Your task to perform on an android device: choose inbox layout in the gmail app Image 0: 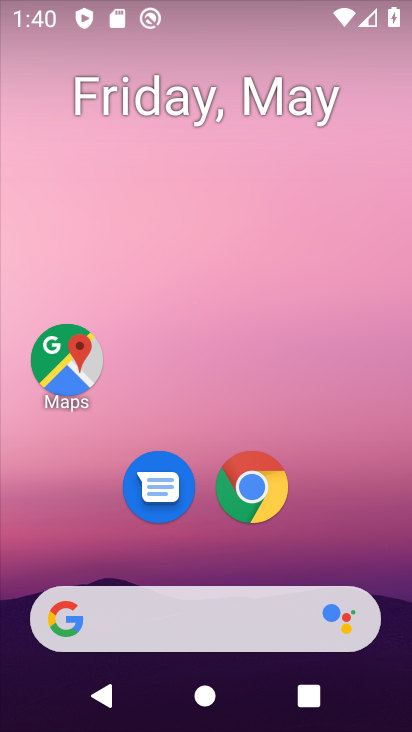
Step 0: drag from (344, 544) to (295, 29)
Your task to perform on an android device: choose inbox layout in the gmail app Image 1: 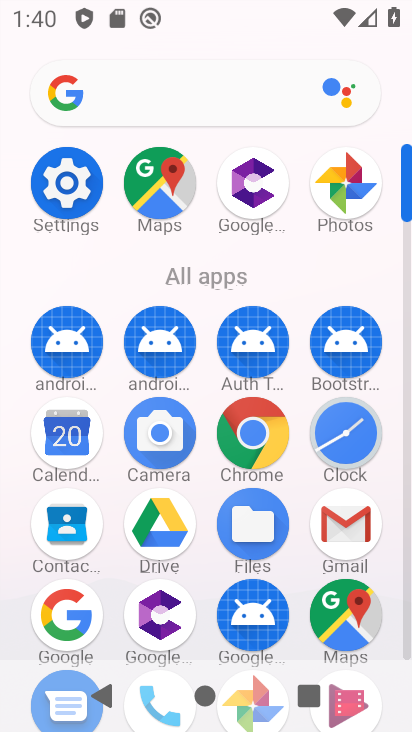
Step 1: click (338, 526)
Your task to perform on an android device: choose inbox layout in the gmail app Image 2: 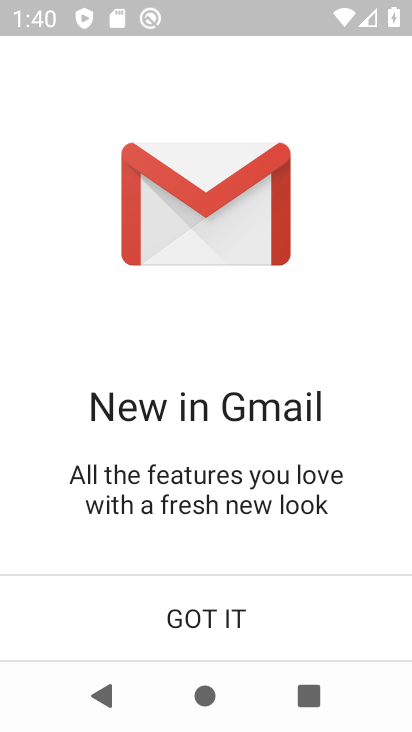
Step 2: click (197, 615)
Your task to perform on an android device: choose inbox layout in the gmail app Image 3: 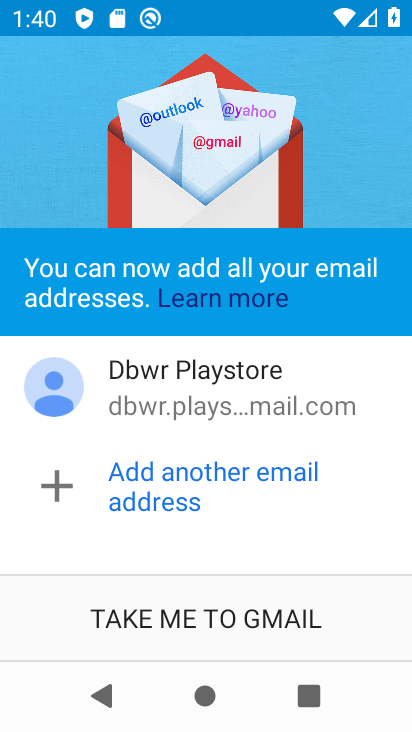
Step 3: click (197, 615)
Your task to perform on an android device: choose inbox layout in the gmail app Image 4: 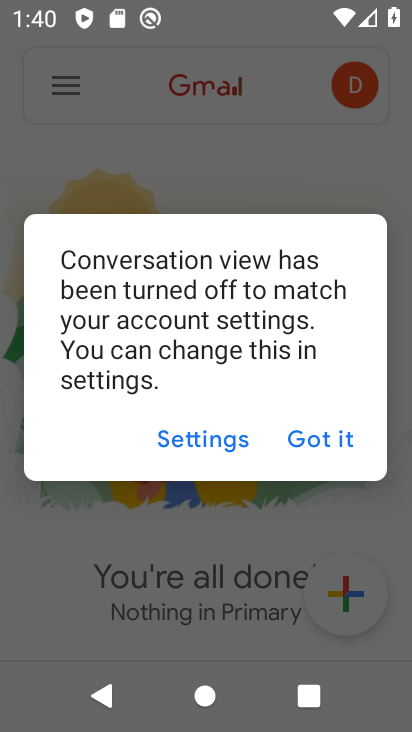
Step 4: click (305, 446)
Your task to perform on an android device: choose inbox layout in the gmail app Image 5: 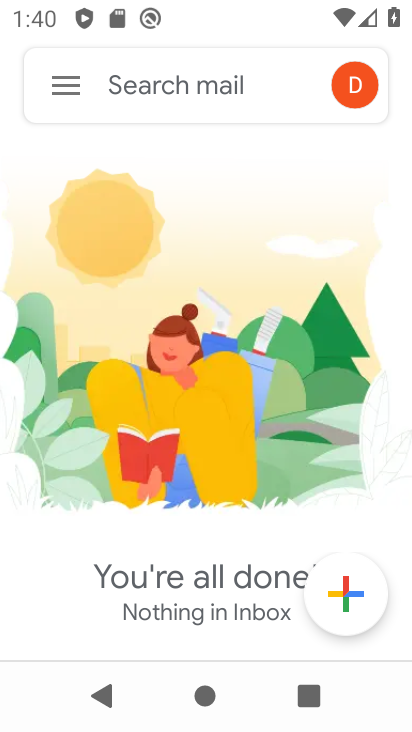
Step 5: click (51, 96)
Your task to perform on an android device: choose inbox layout in the gmail app Image 6: 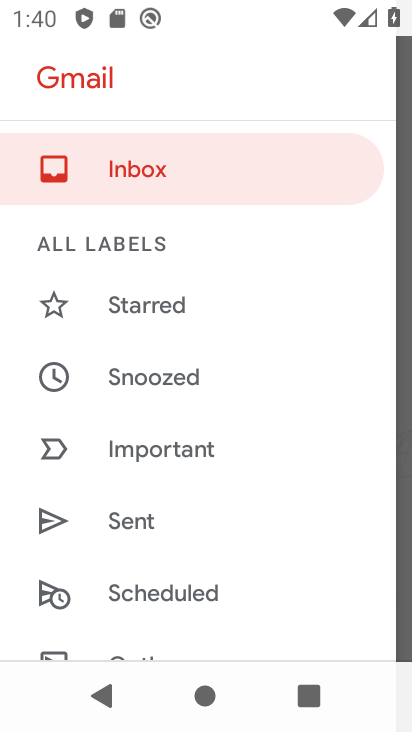
Step 6: drag from (209, 602) to (191, 88)
Your task to perform on an android device: choose inbox layout in the gmail app Image 7: 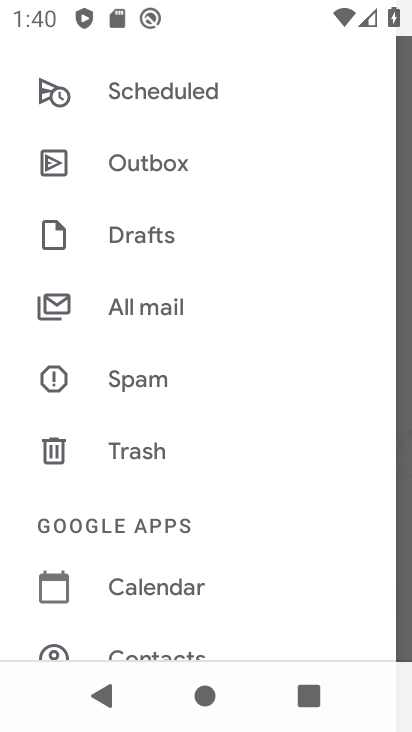
Step 7: drag from (216, 618) to (176, 199)
Your task to perform on an android device: choose inbox layout in the gmail app Image 8: 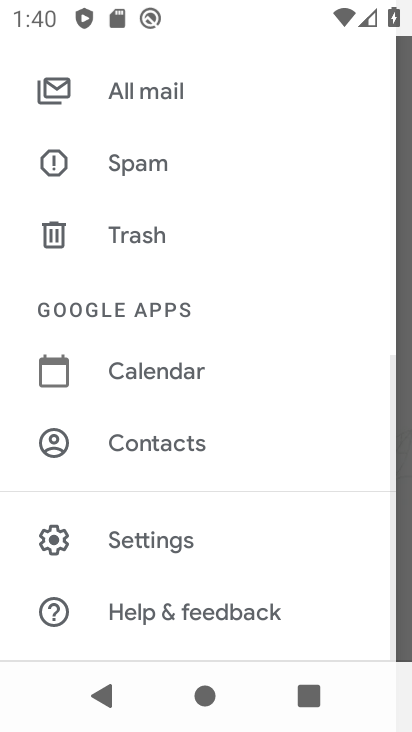
Step 8: click (130, 544)
Your task to perform on an android device: choose inbox layout in the gmail app Image 9: 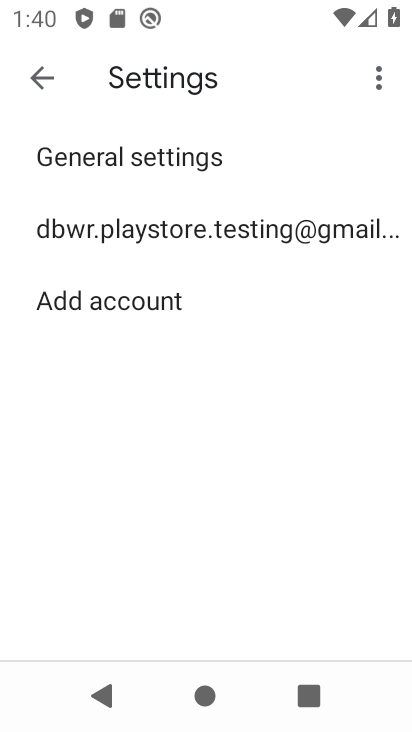
Step 9: click (116, 230)
Your task to perform on an android device: choose inbox layout in the gmail app Image 10: 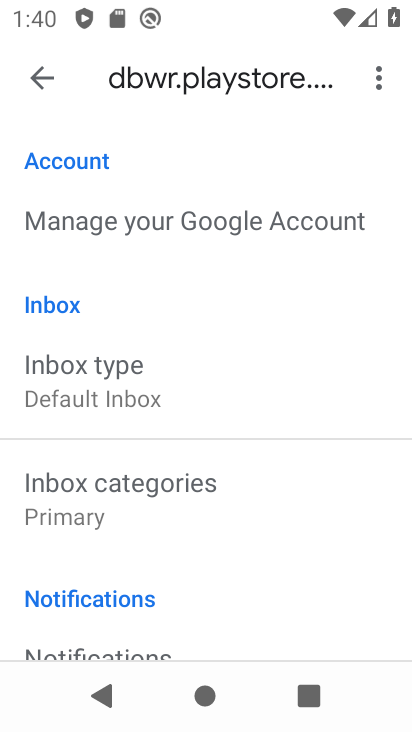
Step 10: click (89, 386)
Your task to perform on an android device: choose inbox layout in the gmail app Image 11: 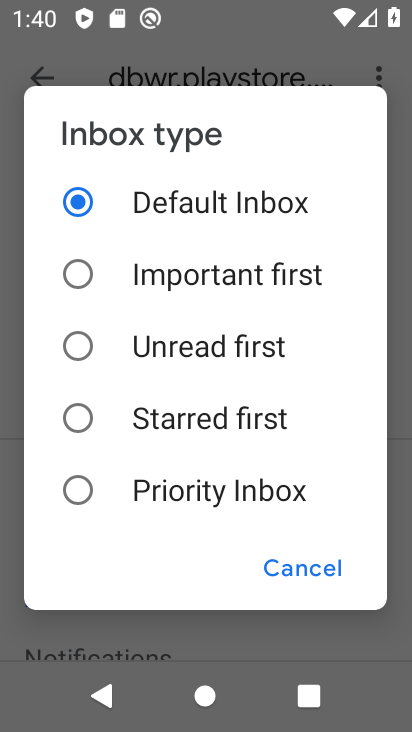
Step 11: click (84, 277)
Your task to perform on an android device: choose inbox layout in the gmail app Image 12: 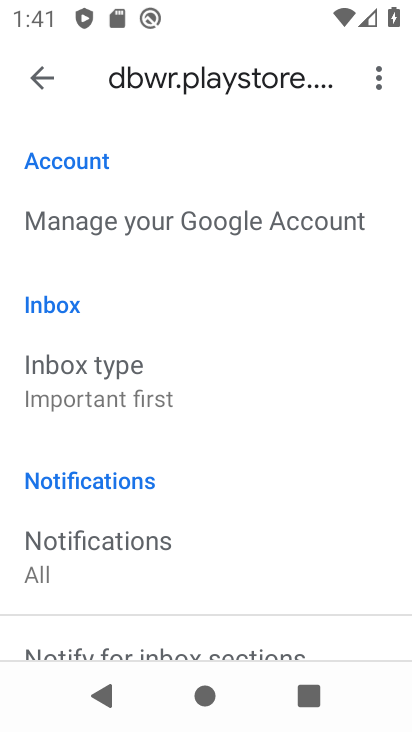
Step 12: task complete